Your task to perform on an android device: toggle show notifications on the lock screen Image 0: 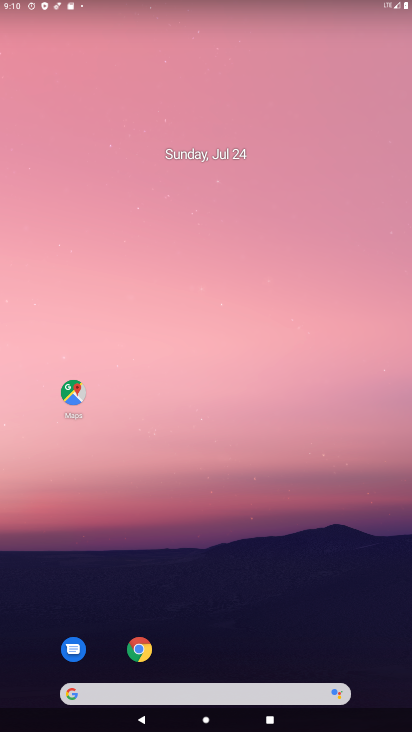
Step 0: drag from (12, 706) to (158, 154)
Your task to perform on an android device: toggle show notifications on the lock screen Image 1: 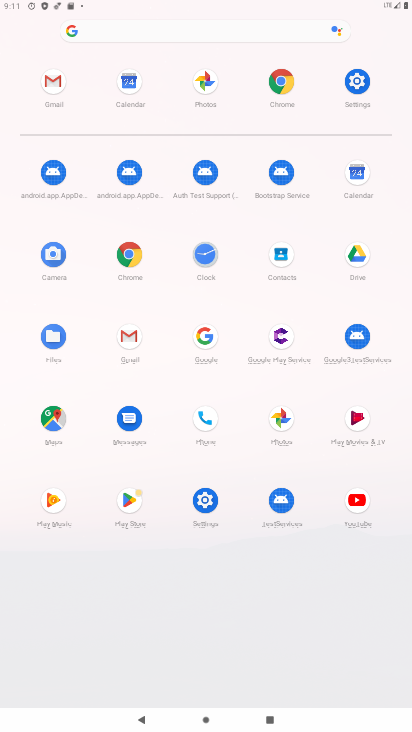
Step 1: click (212, 509)
Your task to perform on an android device: toggle show notifications on the lock screen Image 2: 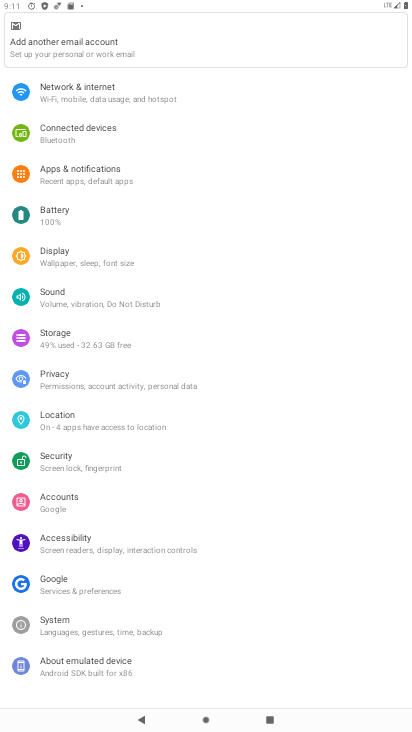
Step 2: click (103, 173)
Your task to perform on an android device: toggle show notifications on the lock screen Image 3: 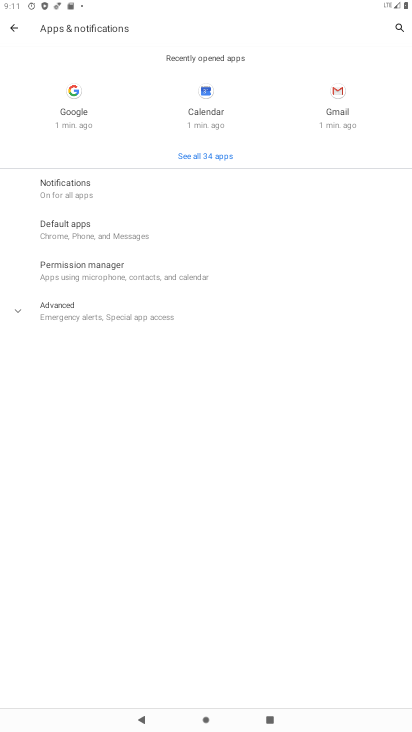
Step 3: click (92, 313)
Your task to perform on an android device: toggle show notifications on the lock screen Image 4: 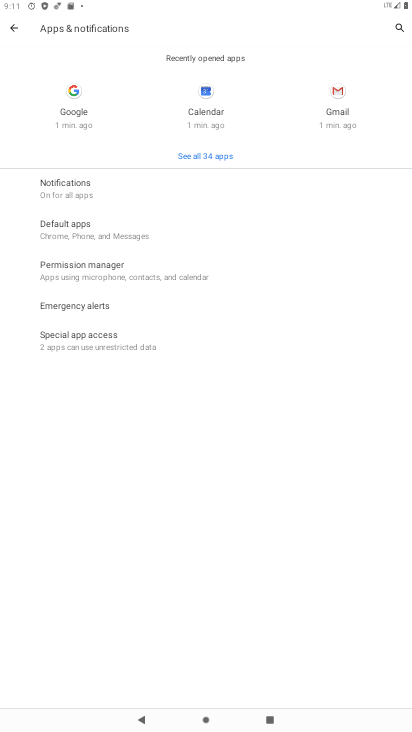
Step 4: click (90, 191)
Your task to perform on an android device: toggle show notifications on the lock screen Image 5: 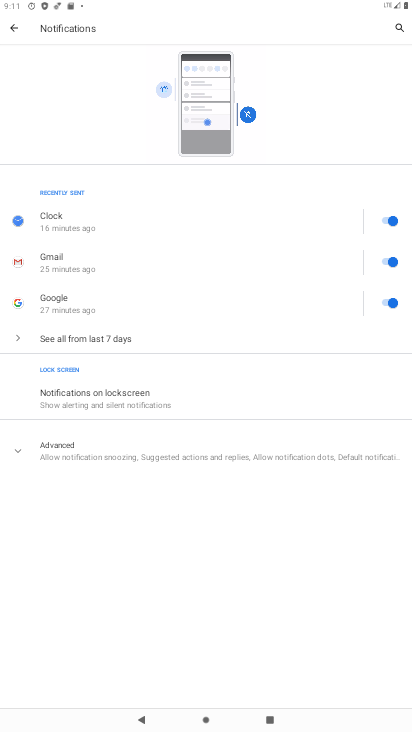
Step 5: click (128, 399)
Your task to perform on an android device: toggle show notifications on the lock screen Image 6: 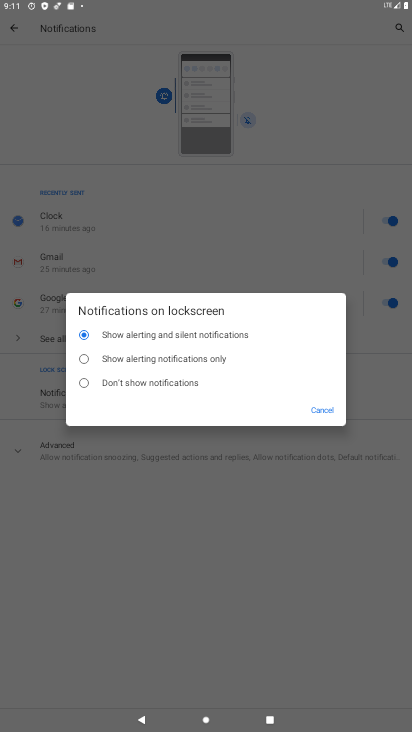
Step 6: task complete